Your task to perform on an android device: turn on translation in the chrome app Image 0: 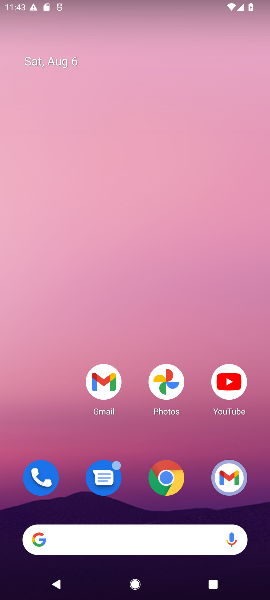
Step 0: click (161, 480)
Your task to perform on an android device: turn on translation in the chrome app Image 1: 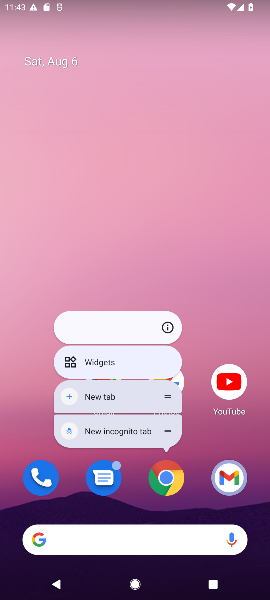
Step 1: click (159, 480)
Your task to perform on an android device: turn on translation in the chrome app Image 2: 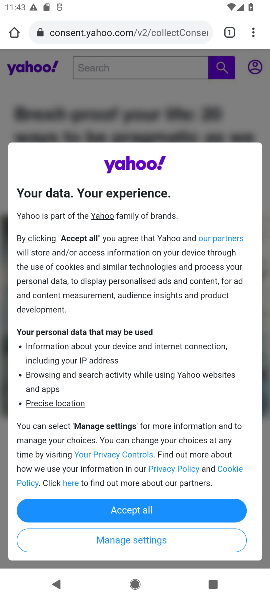
Step 2: click (249, 33)
Your task to perform on an android device: turn on translation in the chrome app Image 3: 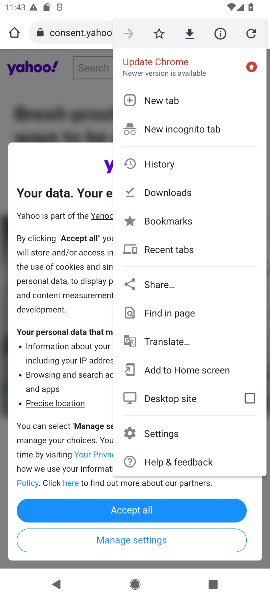
Step 3: click (153, 434)
Your task to perform on an android device: turn on translation in the chrome app Image 4: 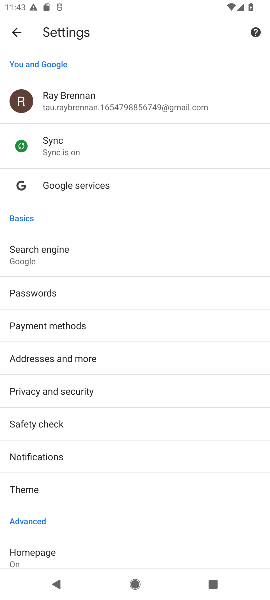
Step 4: drag from (51, 549) to (74, 260)
Your task to perform on an android device: turn on translation in the chrome app Image 5: 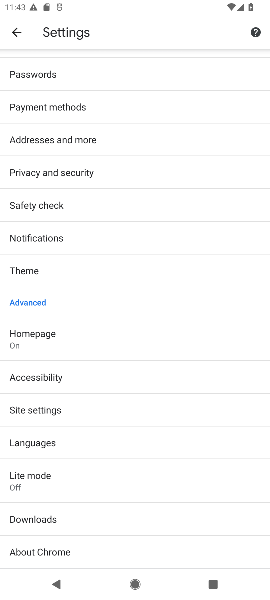
Step 5: click (50, 443)
Your task to perform on an android device: turn on translation in the chrome app Image 6: 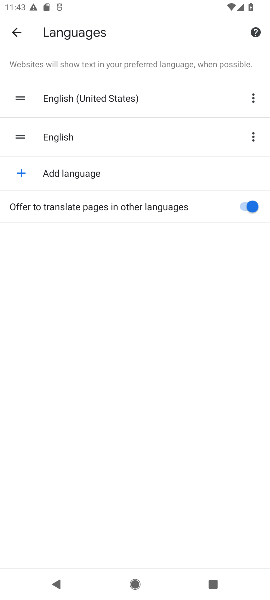
Step 6: task complete